Your task to perform on an android device: Open ESPN.com Image 0: 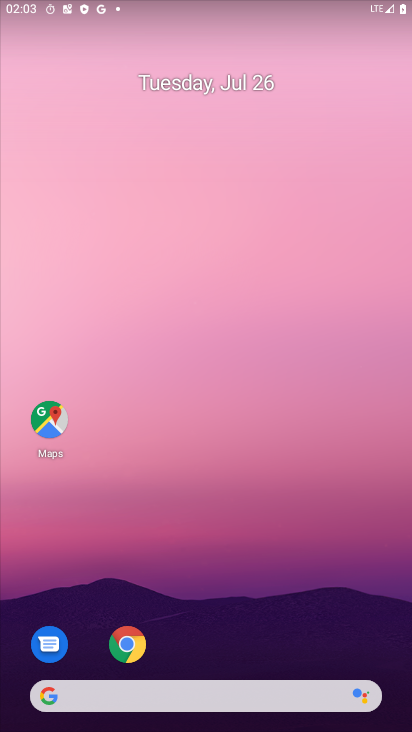
Step 0: click (135, 636)
Your task to perform on an android device: Open ESPN.com Image 1: 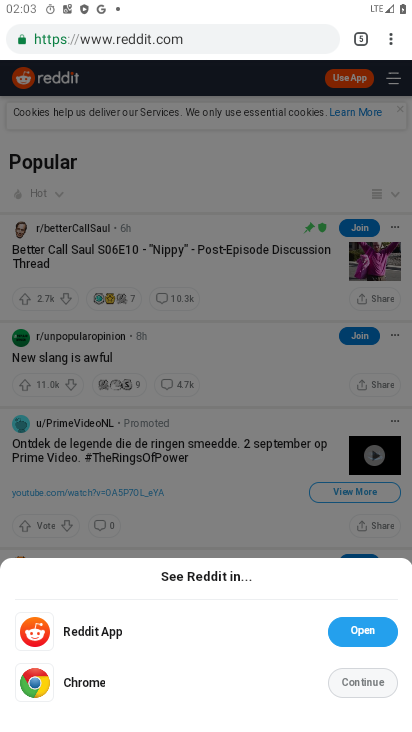
Step 1: click (181, 42)
Your task to perform on an android device: Open ESPN.com Image 2: 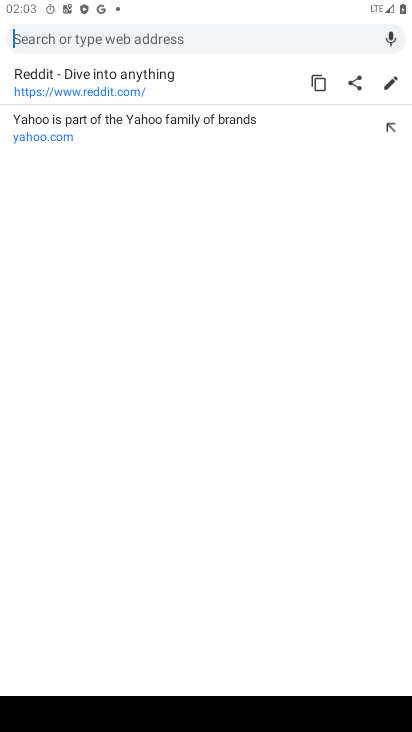
Step 2: type "espn.com"
Your task to perform on an android device: Open ESPN.com Image 3: 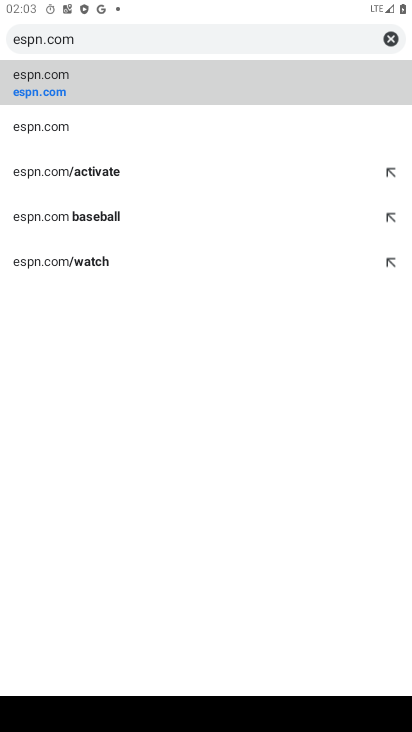
Step 3: click (38, 83)
Your task to perform on an android device: Open ESPN.com Image 4: 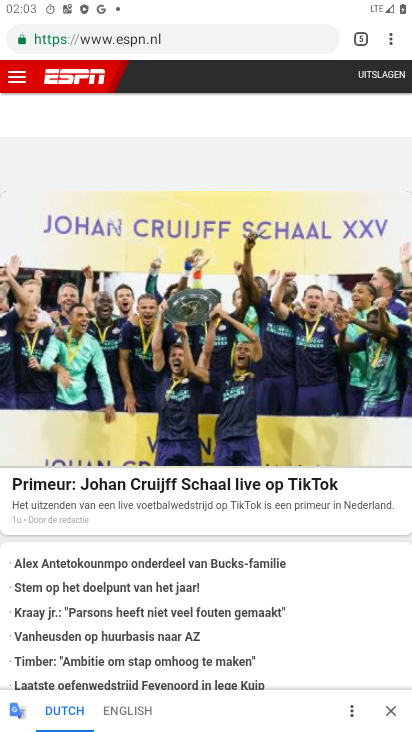
Step 4: task complete